Your task to perform on an android device: turn on the 24-hour format for clock Image 0: 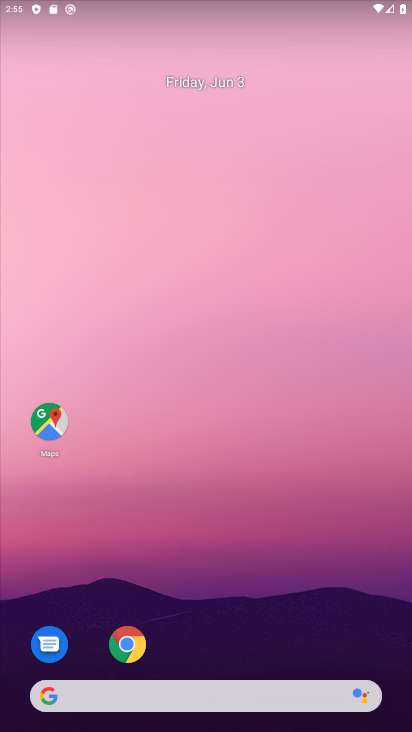
Step 0: press home button
Your task to perform on an android device: turn on the 24-hour format for clock Image 1: 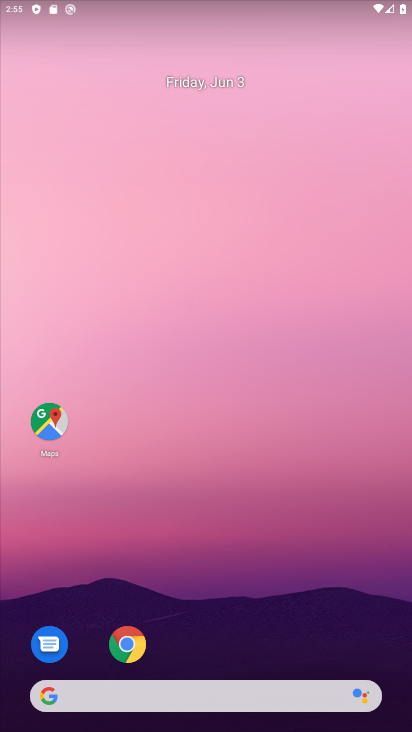
Step 1: drag from (233, 611) to (199, 115)
Your task to perform on an android device: turn on the 24-hour format for clock Image 2: 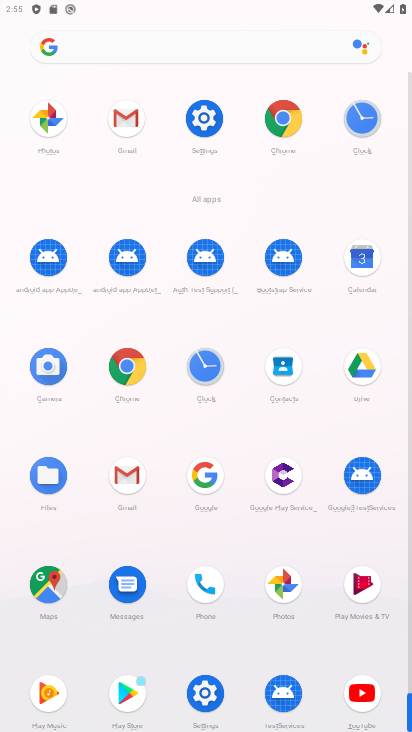
Step 2: click (195, 383)
Your task to perform on an android device: turn on the 24-hour format for clock Image 3: 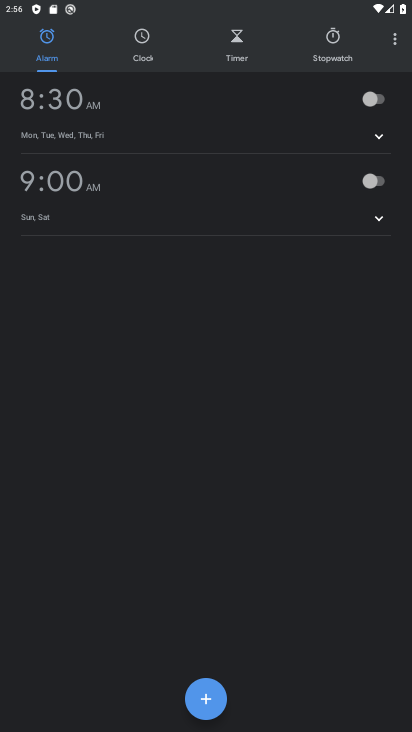
Step 3: click (387, 42)
Your task to perform on an android device: turn on the 24-hour format for clock Image 4: 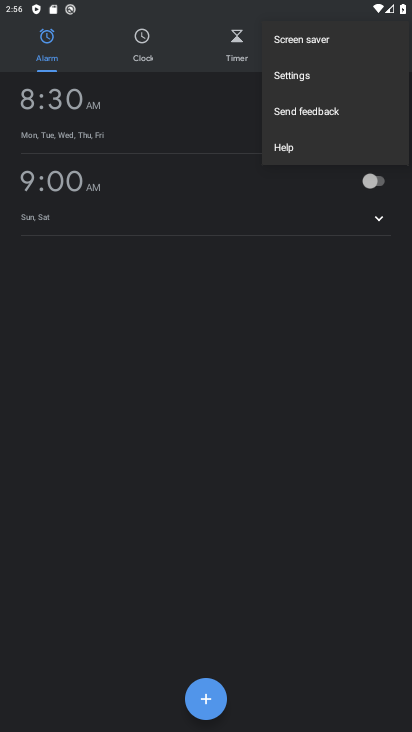
Step 4: click (334, 83)
Your task to perform on an android device: turn on the 24-hour format for clock Image 5: 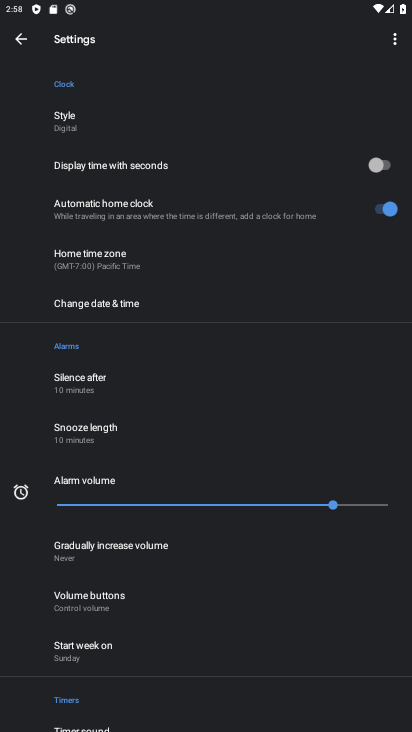
Step 5: click (119, 308)
Your task to perform on an android device: turn on the 24-hour format for clock Image 6: 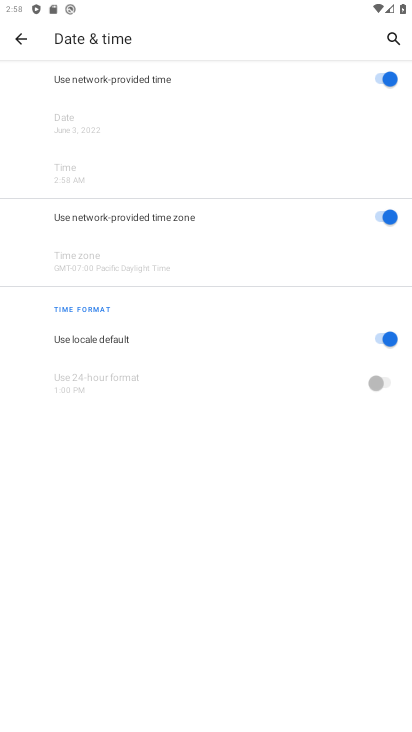
Step 6: click (337, 339)
Your task to perform on an android device: turn on the 24-hour format for clock Image 7: 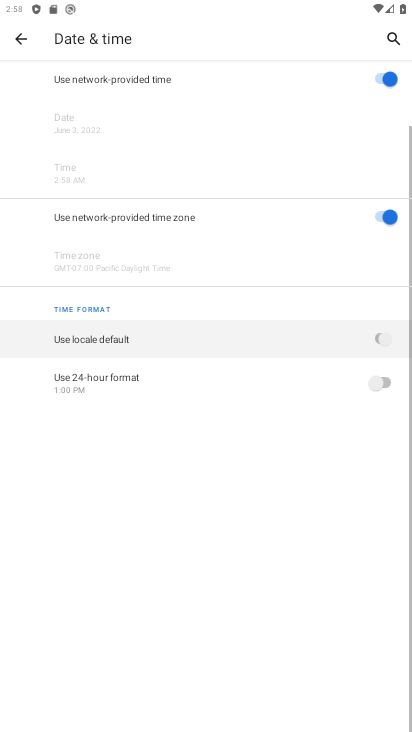
Step 7: click (296, 387)
Your task to perform on an android device: turn on the 24-hour format for clock Image 8: 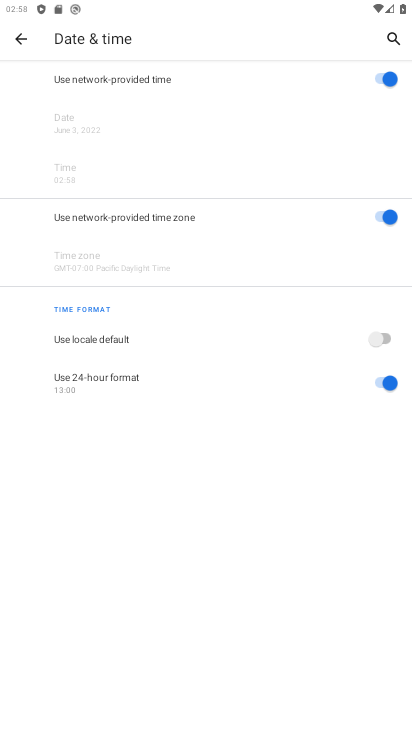
Step 8: task complete